Your task to perform on an android device: check android version Image 0: 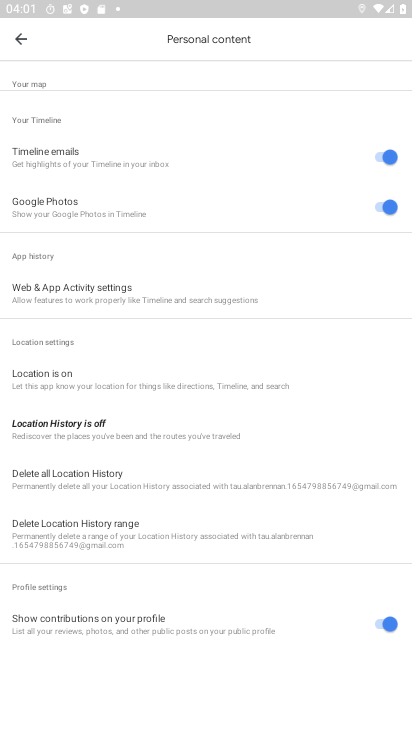
Step 0: press home button
Your task to perform on an android device: check android version Image 1: 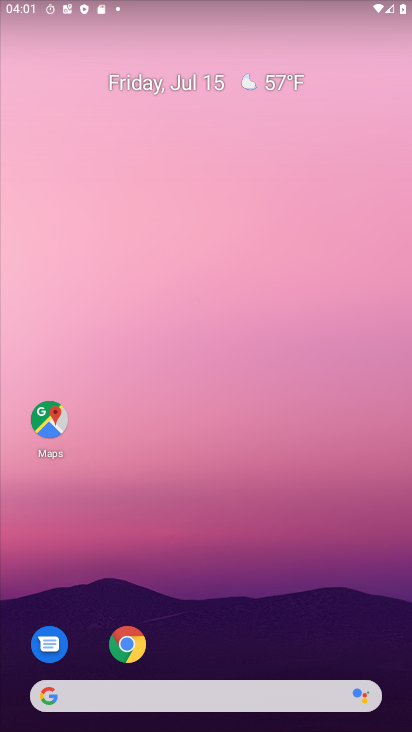
Step 1: drag from (258, 646) to (240, 81)
Your task to perform on an android device: check android version Image 2: 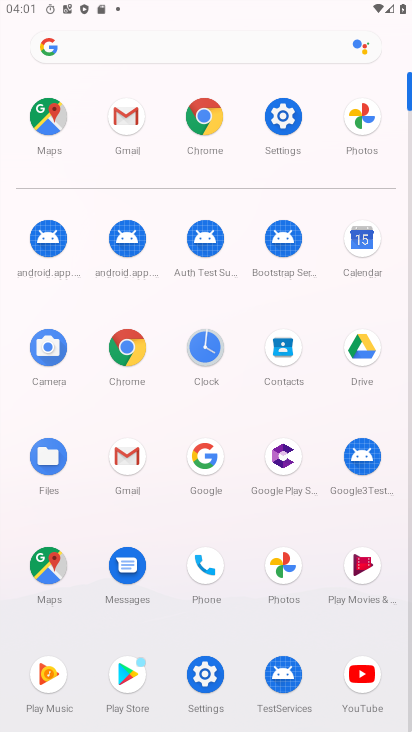
Step 2: click (283, 123)
Your task to perform on an android device: check android version Image 3: 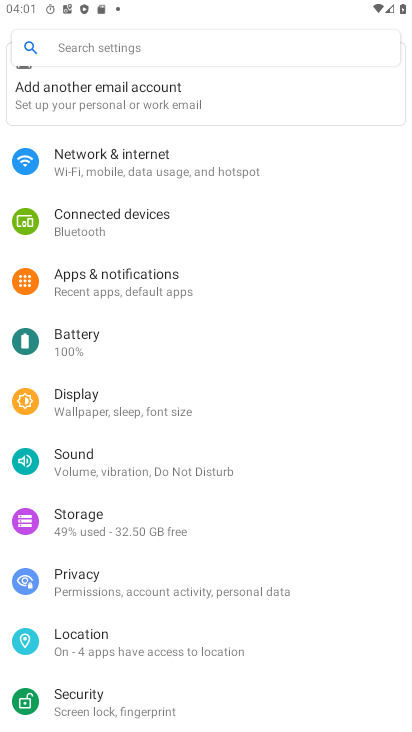
Step 3: drag from (209, 667) to (178, 211)
Your task to perform on an android device: check android version Image 4: 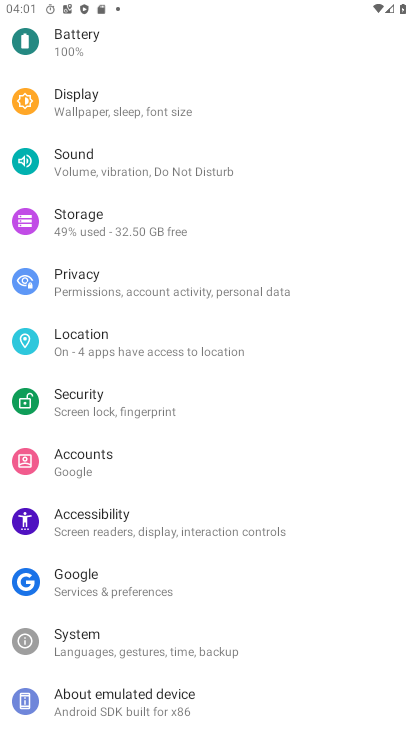
Step 4: click (177, 707)
Your task to perform on an android device: check android version Image 5: 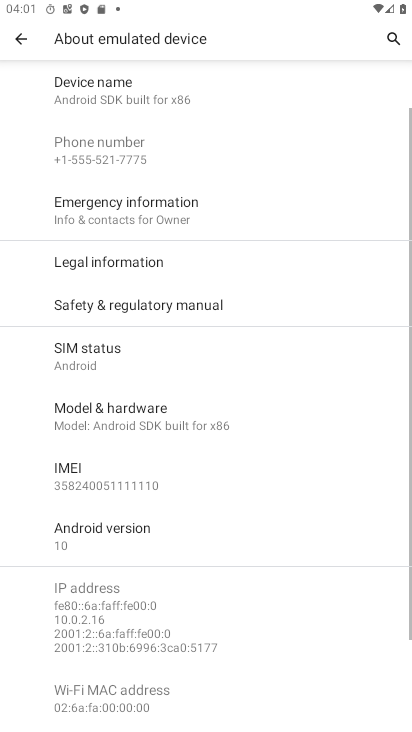
Step 5: click (221, 540)
Your task to perform on an android device: check android version Image 6: 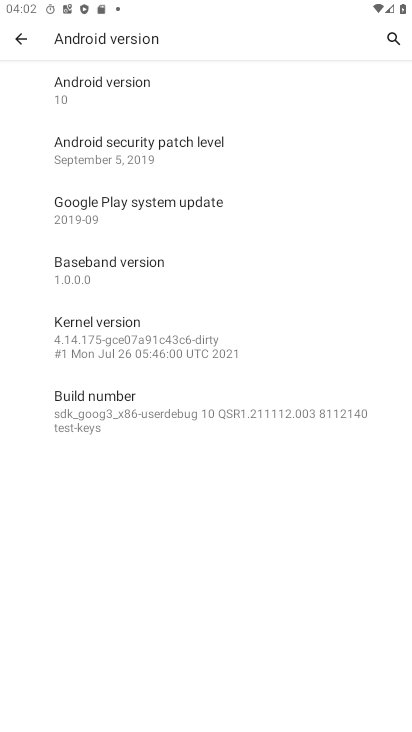
Step 6: task complete